Your task to perform on an android device: change the clock display to show seconds Image 0: 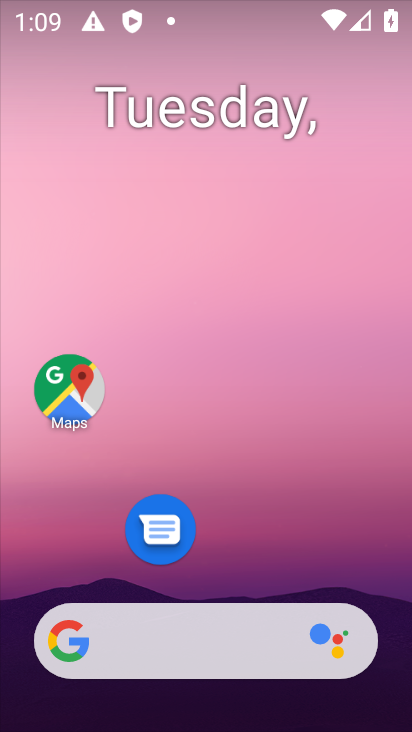
Step 0: drag from (242, 329) to (81, 123)
Your task to perform on an android device: change the clock display to show seconds Image 1: 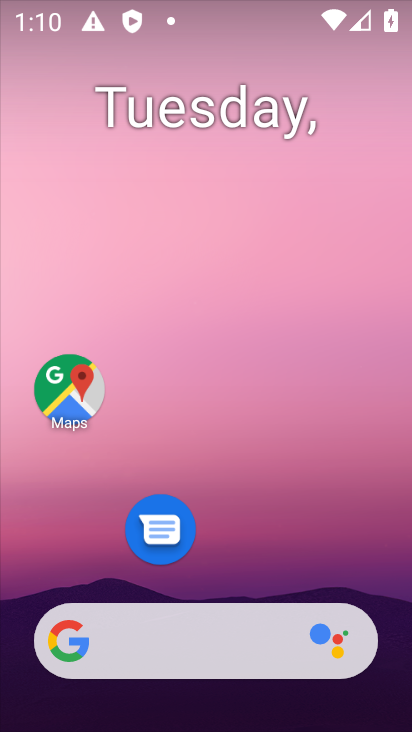
Step 1: click (236, 150)
Your task to perform on an android device: change the clock display to show seconds Image 2: 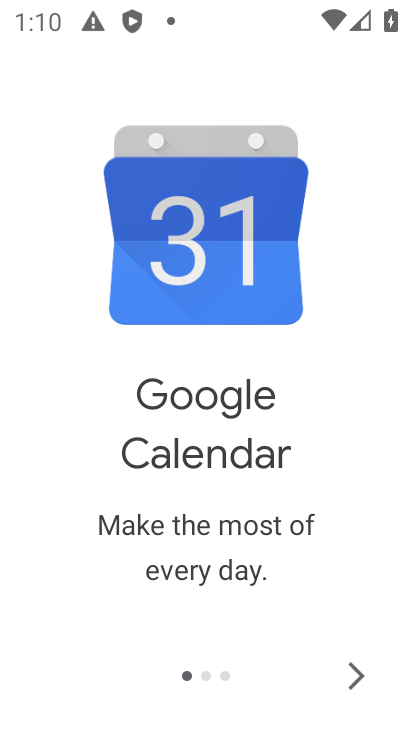
Step 2: click (345, 692)
Your task to perform on an android device: change the clock display to show seconds Image 3: 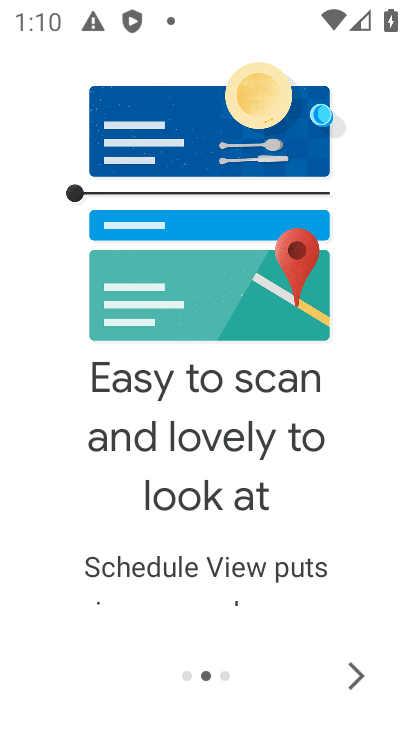
Step 3: click (345, 692)
Your task to perform on an android device: change the clock display to show seconds Image 4: 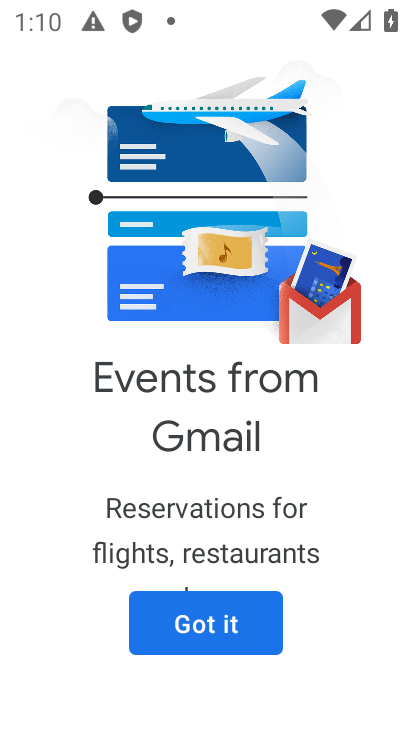
Step 4: task complete